Your task to perform on an android device: Open privacy settings Image 0: 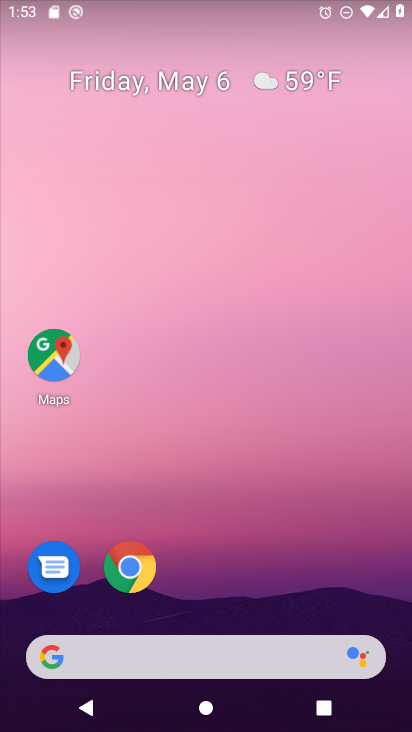
Step 0: drag from (267, 539) to (244, 43)
Your task to perform on an android device: Open privacy settings Image 1: 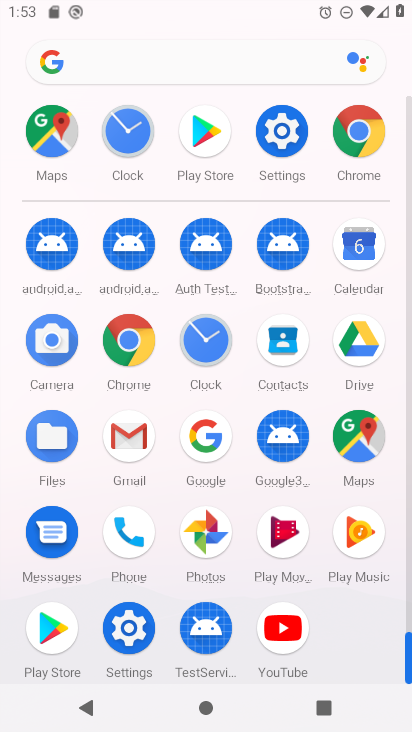
Step 1: click (125, 625)
Your task to perform on an android device: Open privacy settings Image 2: 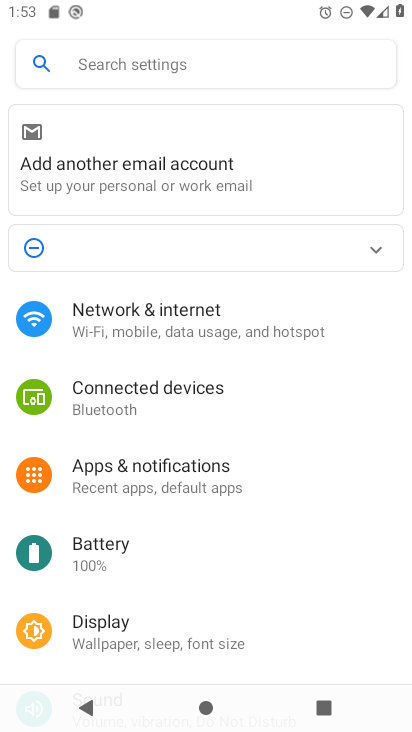
Step 2: drag from (270, 624) to (245, 322)
Your task to perform on an android device: Open privacy settings Image 3: 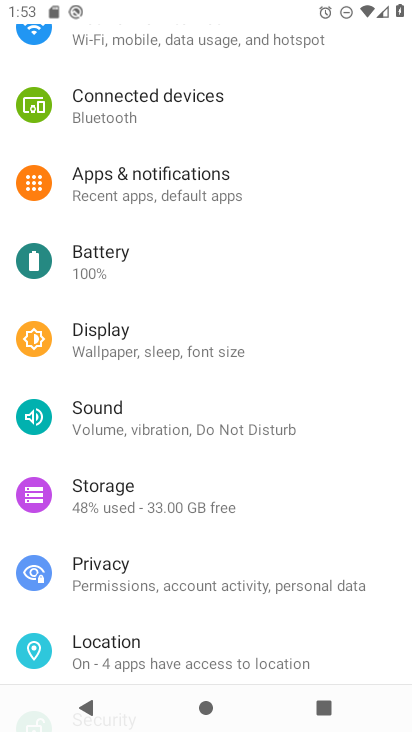
Step 3: drag from (227, 558) to (218, 423)
Your task to perform on an android device: Open privacy settings Image 4: 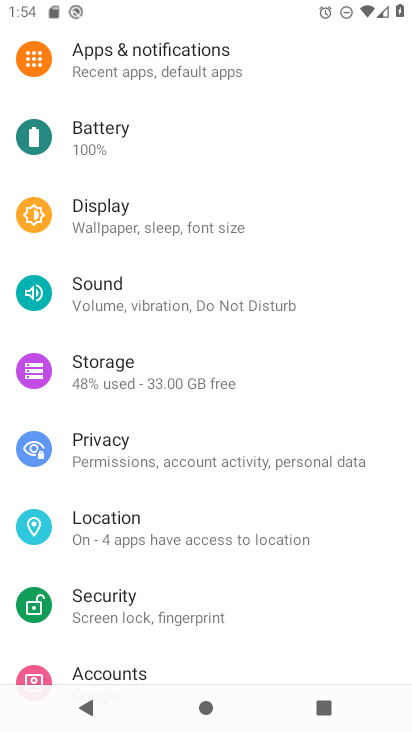
Step 4: click (218, 423)
Your task to perform on an android device: Open privacy settings Image 5: 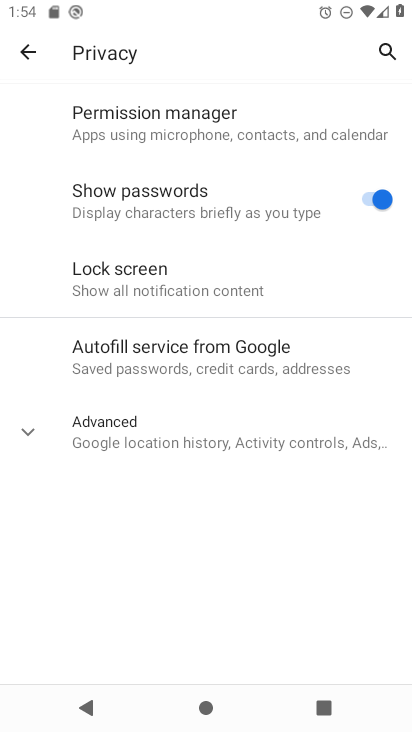
Step 5: task complete